Your task to perform on an android device: Go to battery settings Image 0: 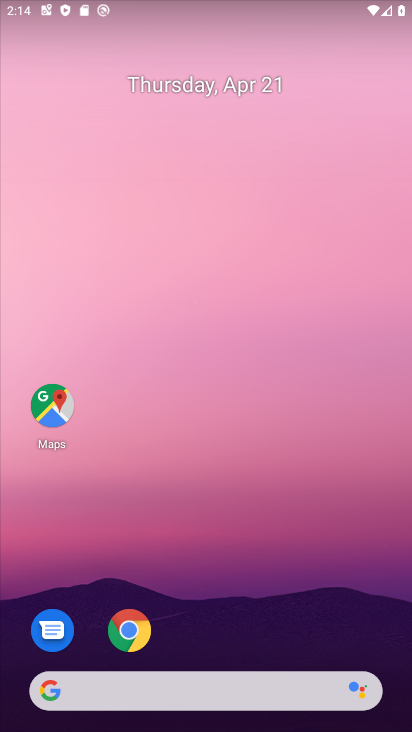
Step 0: drag from (376, 611) to (393, 110)
Your task to perform on an android device: Go to battery settings Image 1: 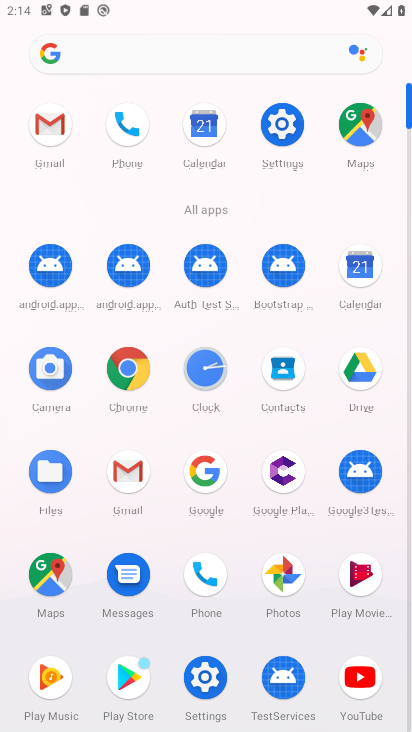
Step 1: click (207, 682)
Your task to perform on an android device: Go to battery settings Image 2: 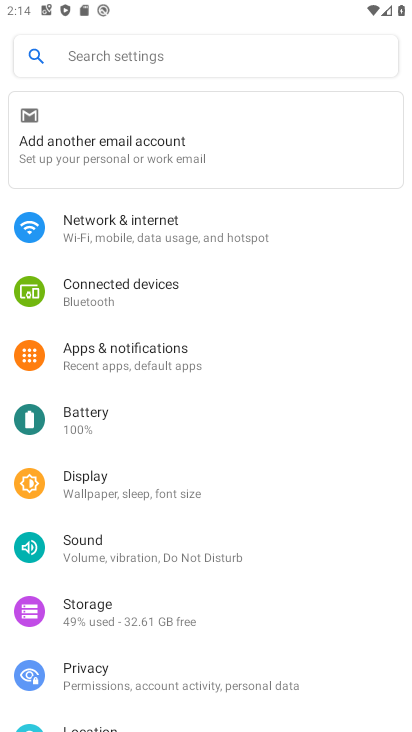
Step 2: drag from (319, 288) to (314, 493)
Your task to perform on an android device: Go to battery settings Image 3: 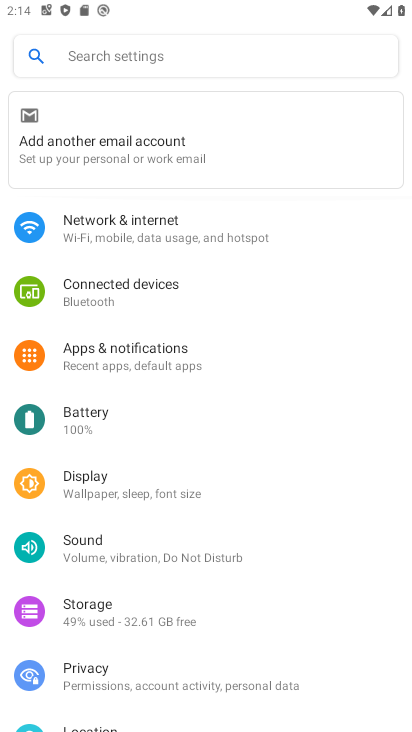
Step 3: drag from (328, 565) to (351, 449)
Your task to perform on an android device: Go to battery settings Image 4: 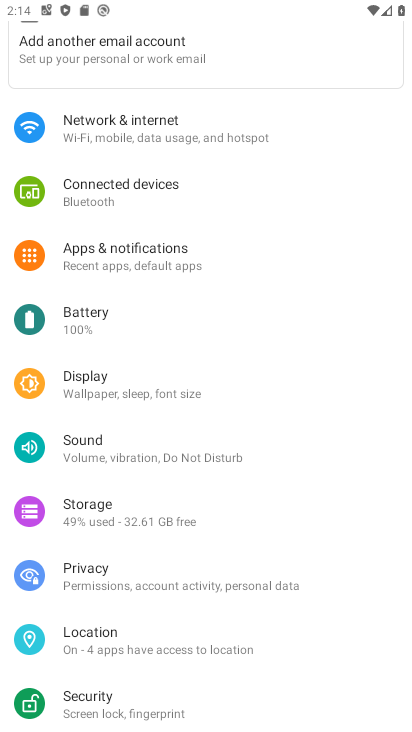
Step 4: drag from (360, 617) to (374, 543)
Your task to perform on an android device: Go to battery settings Image 5: 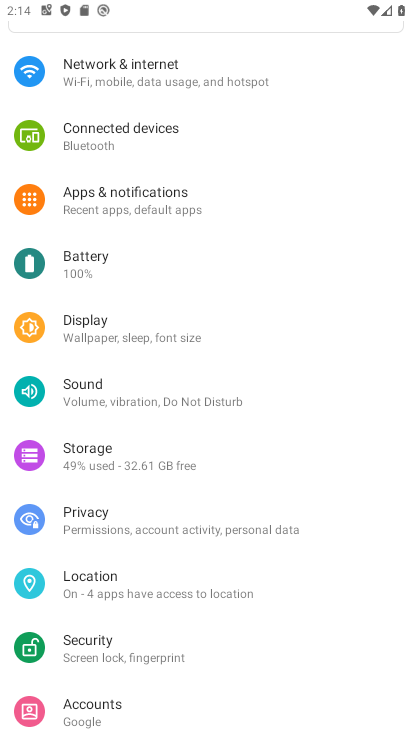
Step 5: drag from (358, 603) to (380, 475)
Your task to perform on an android device: Go to battery settings Image 6: 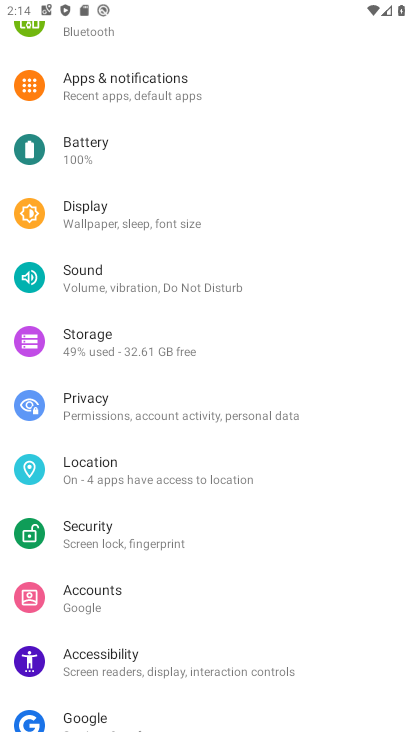
Step 6: drag from (354, 572) to (363, 536)
Your task to perform on an android device: Go to battery settings Image 7: 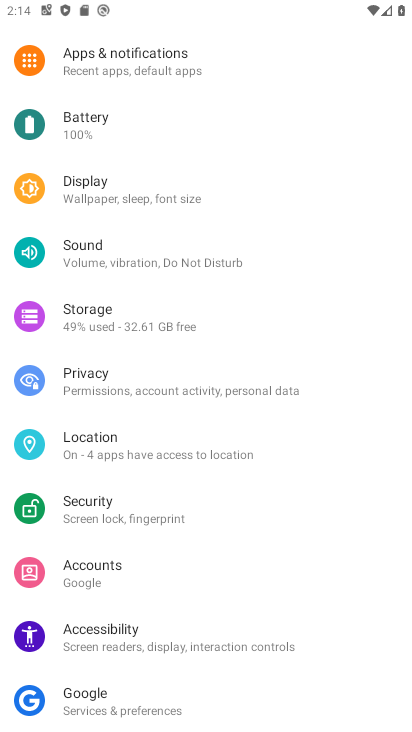
Step 7: drag from (354, 568) to (370, 474)
Your task to perform on an android device: Go to battery settings Image 8: 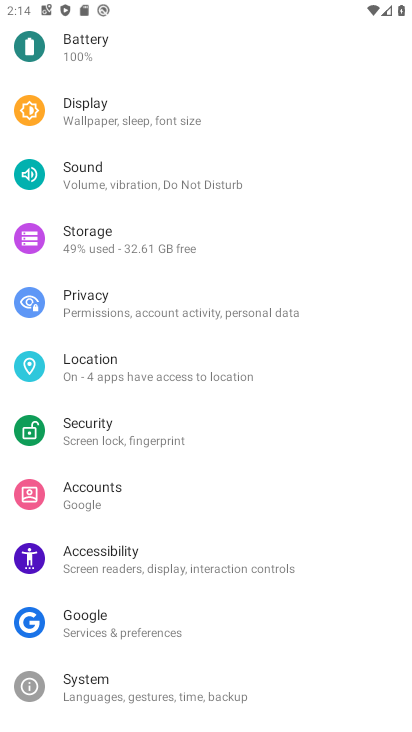
Step 8: drag from (358, 522) to (370, 416)
Your task to perform on an android device: Go to battery settings Image 9: 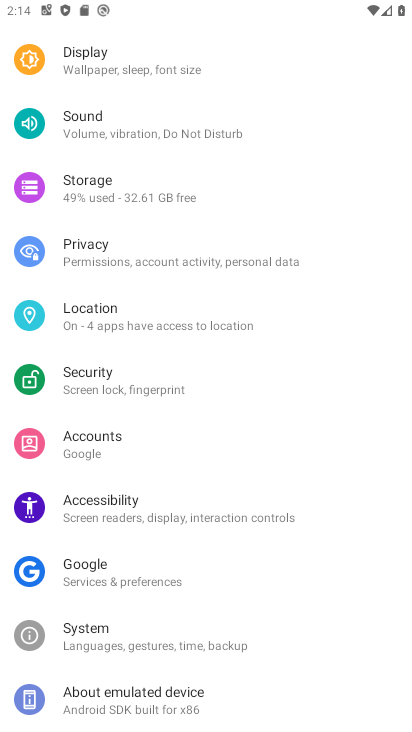
Step 9: drag from (349, 590) to (368, 440)
Your task to perform on an android device: Go to battery settings Image 10: 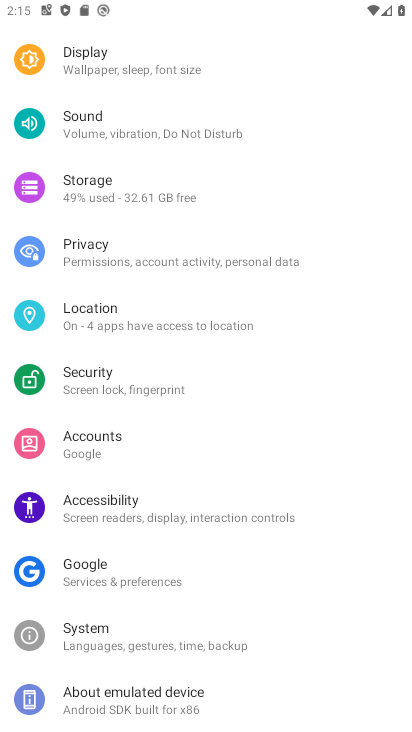
Step 10: drag from (337, 598) to (356, 508)
Your task to perform on an android device: Go to battery settings Image 11: 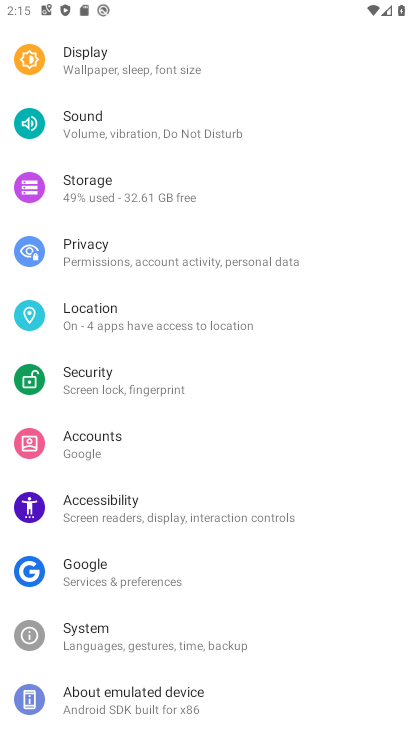
Step 11: drag from (342, 554) to (352, 425)
Your task to perform on an android device: Go to battery settings Image 12: 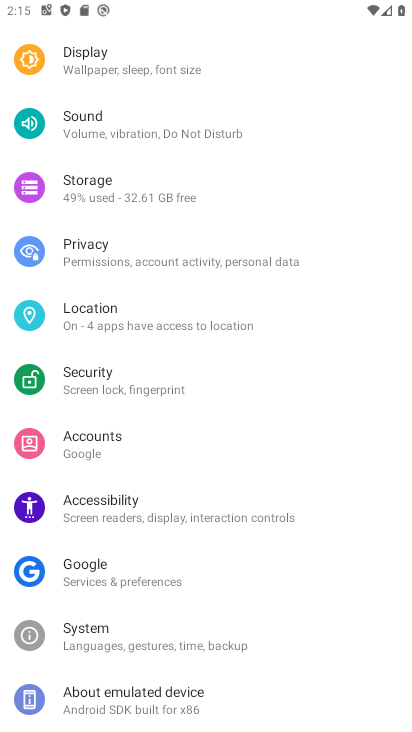
Step 12: drag from (346, 360) to (333, 486)
Your task to perform on an android device: Go to battery settings Image 13: 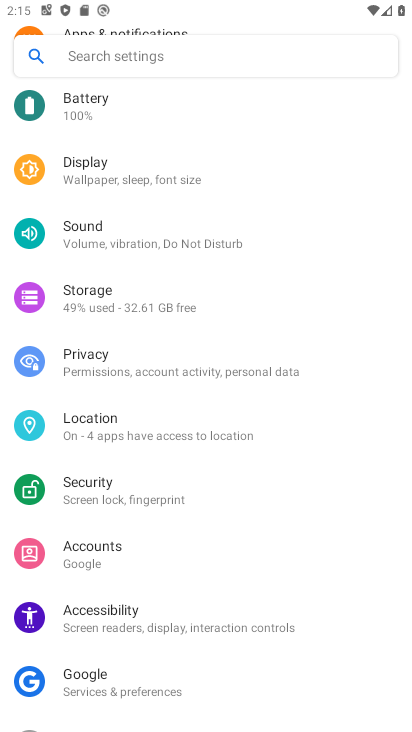
Step 13: drag from (346, 345) to (345, 469)
Your task to perform on an android device: Go to battery settings Image 14: 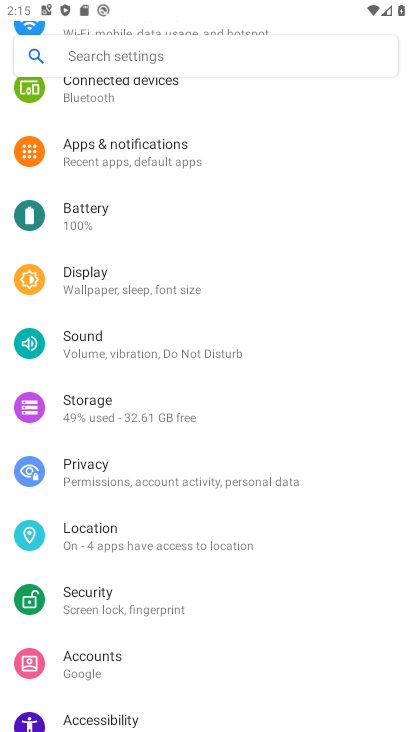
Step 14: drag from (356, 340) to (351, 448)
Your task to perform on an android device: Go to battery settings Image 15: 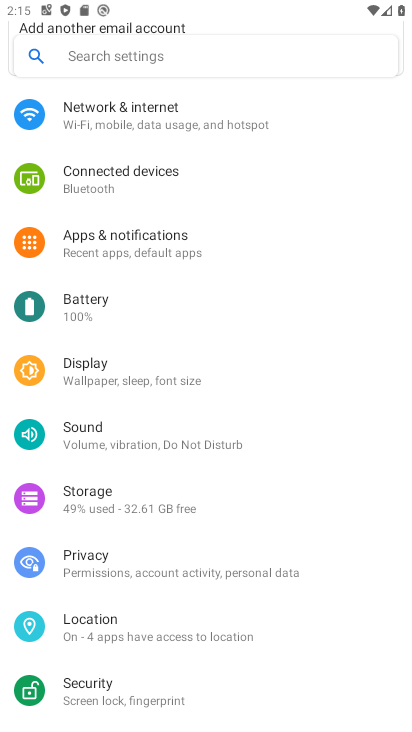
Step 15: drag from (350, 340) to (354, 435)
Your task to perform on an android device: Go to battery settings Image 16: 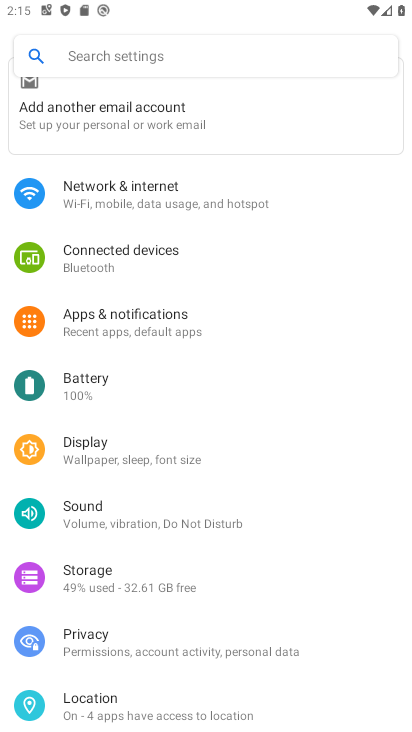
Step 16: drag from (357, 384) to (353, 427)
Your task to perform on an android device: Go to battery settings Image 17: 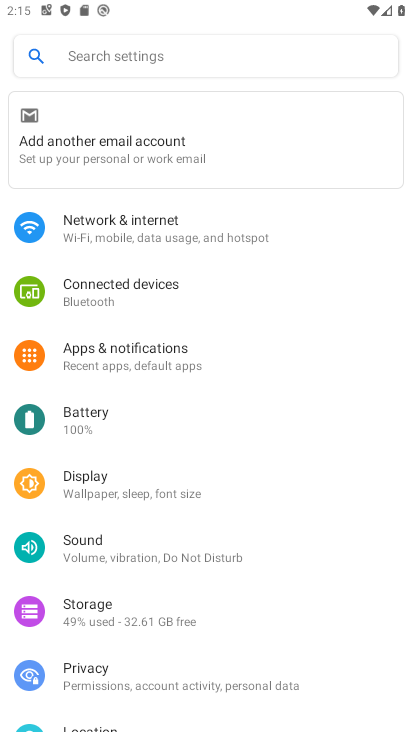
Step 17: drag from (362, 386) to (360, 461)
Your task to perform on an android device: Go to battery settings Image 18: 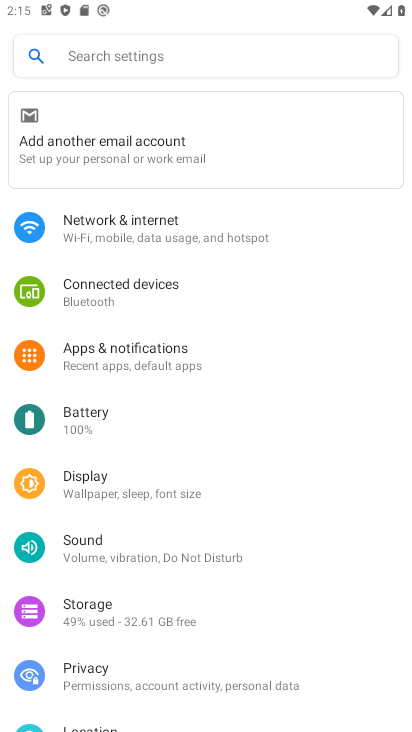
Step 18: click (263, 437)
Your task to perform on an android device: Go to battery settings Image 19: 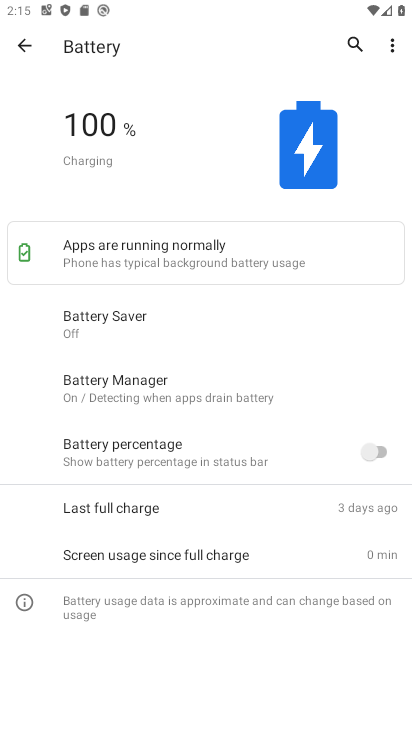
Step 19: task complete